Your task to perform on an android device: turn on data saver in the chrome app Image 0: 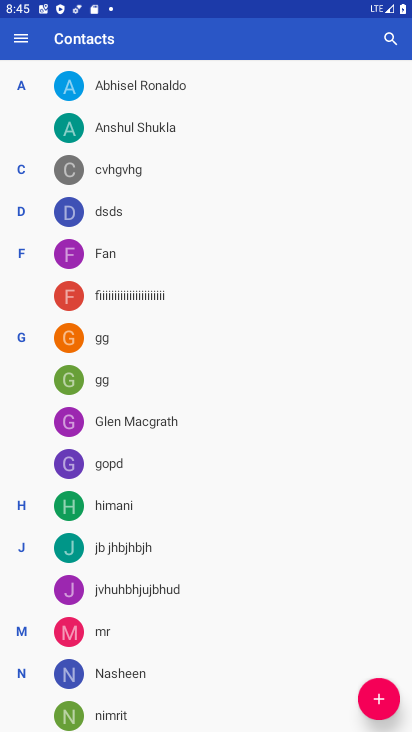
Step 0: press home button
Your task to perform on an android device: turn on data saver in the chrome app Image 1: 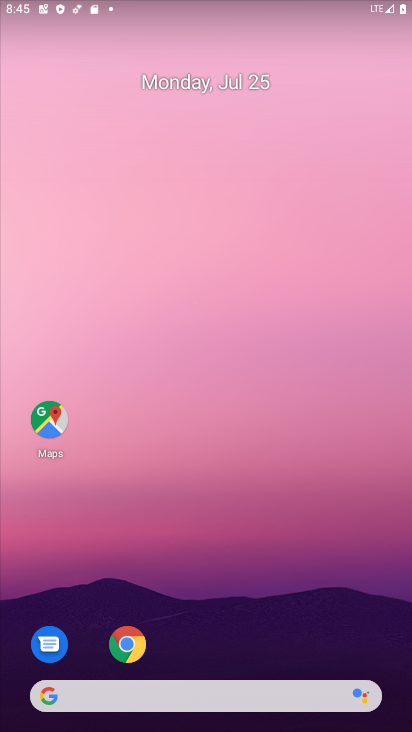
Step 1: drag from (306, 596) to (201, 115)
Your task to perform on an android device: turn on data saver in the chrome app Image 2: 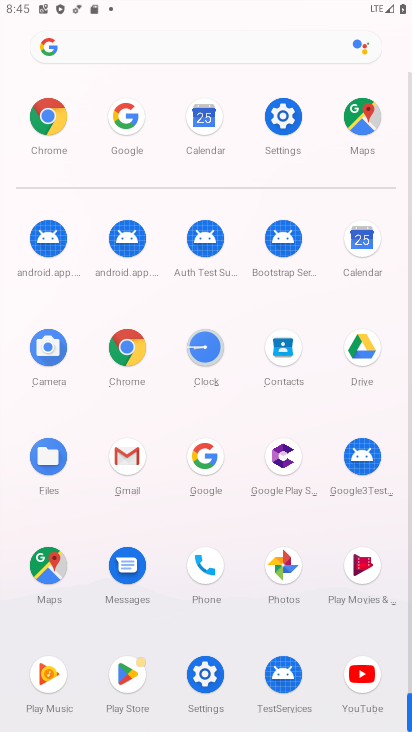
Step 2: click (135, 361)
Your task to perform on an android device: turn on data saver in the chrome app Image 3: 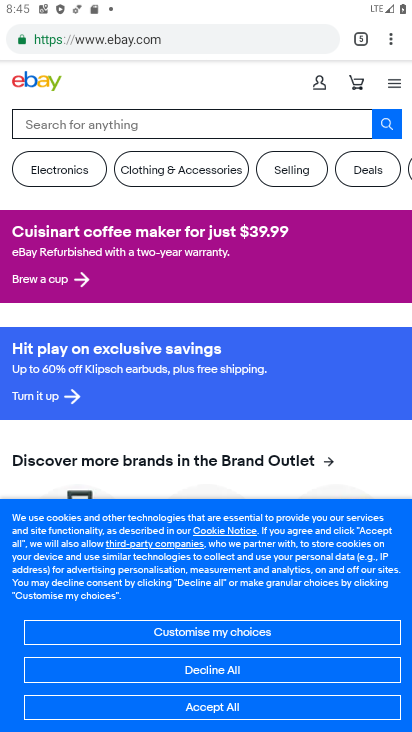
Step 3: click (391, 39)
Your task to perform on an android device: turn on data saver in the chrome app Image 4: 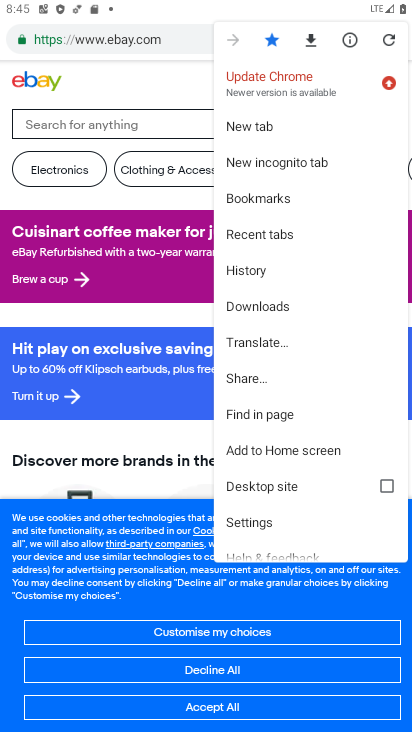
Step 4: click (266, 523)
Your task to perform on an android device: turn on data saver in the chrome app Image 5: 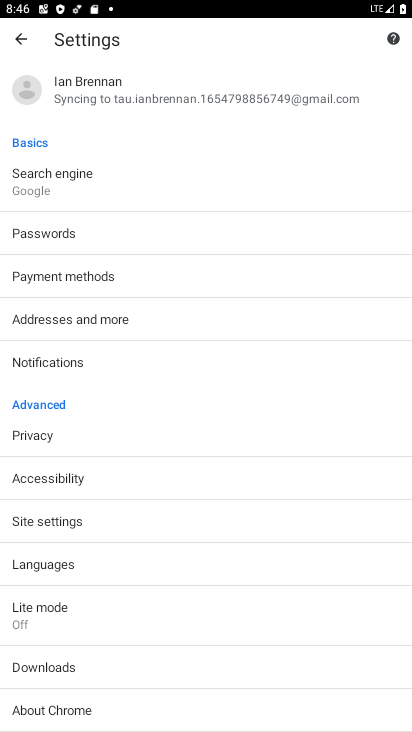
Step 5: click (126, 617)
Your task to perform on an android device: turn on data saver in the chrome app Image 6: 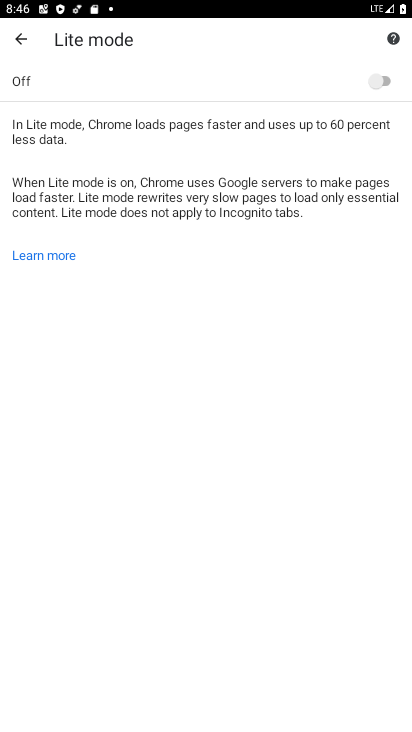
Step 6: click (377, 84)
Your task to perform on an android device: turn on data saver in the chrome app Image 7: 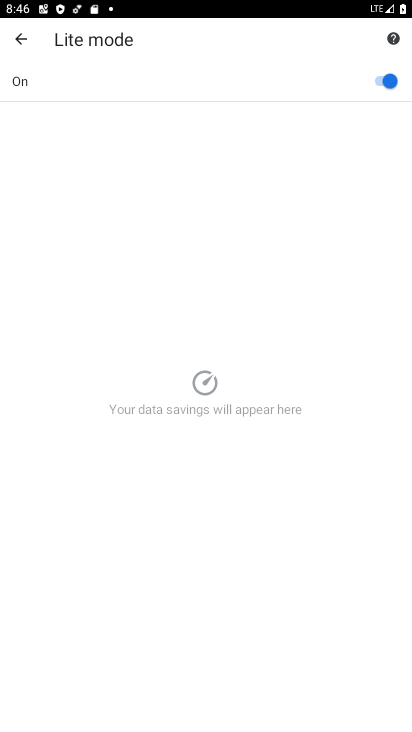
Step 7: task complete